Your task to perform on an android device: Search for seafood restaurants on Google Maps Image 0: 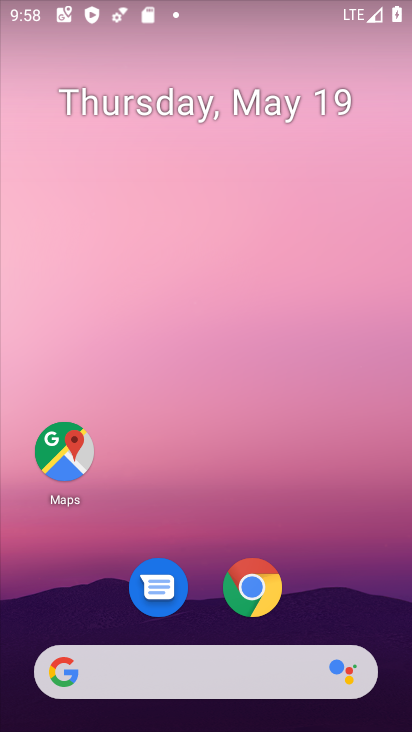
Step 0: click (49, 435)
Your task to perform on an android device: Search for seafood restaurants on Google Maps Image 1: 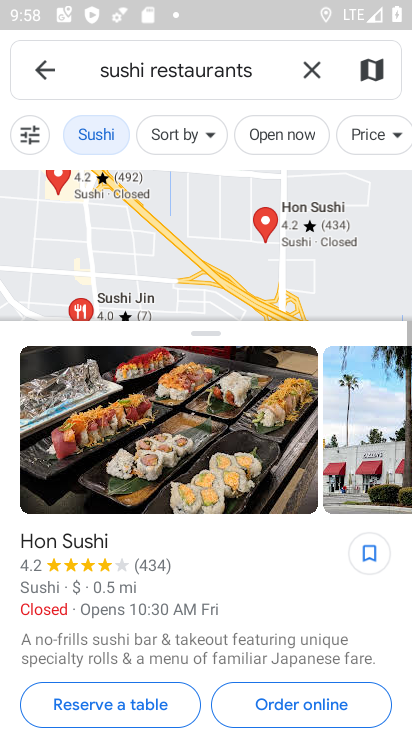
Step 1: click (318, 69)
Your task to perform on an android device: Search for seafood restaurants on Google Maps Image 2: 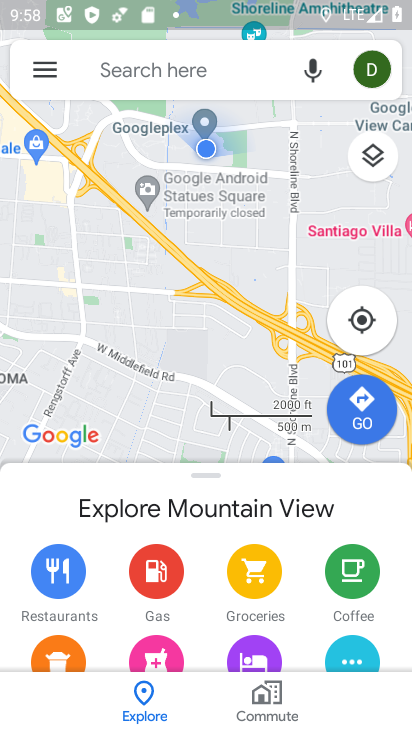
Step 2: click (253, 80)
Your task to perform on an android device: Search for seafood restaurants on Google Maps Image 3: 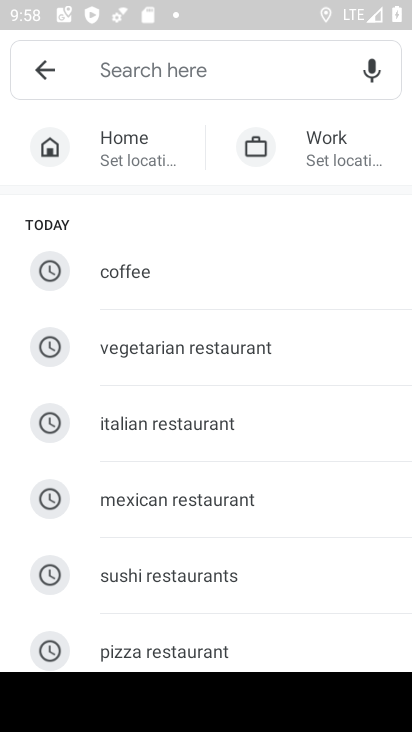
Step 3: type "seafood restaurant"
Your task to perform on an android device: Search for seafood restaurants on Google Maps Image 4: 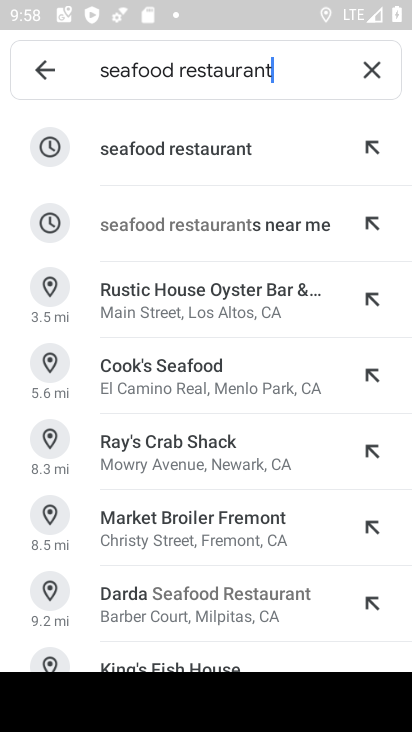
Step 4: click (200, 156)
Your task to perform on an android device: Search for seafood restaurants on Google Maps Image 5: 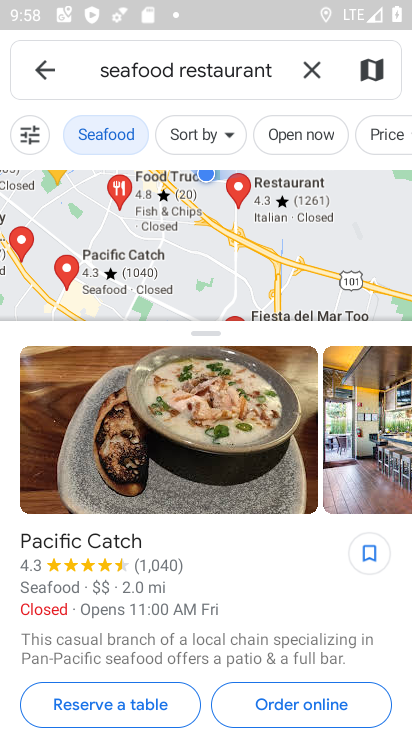
Step 5: task complete